Your task to perform on an android device: turn on the 12-hour format for clock Image 0: 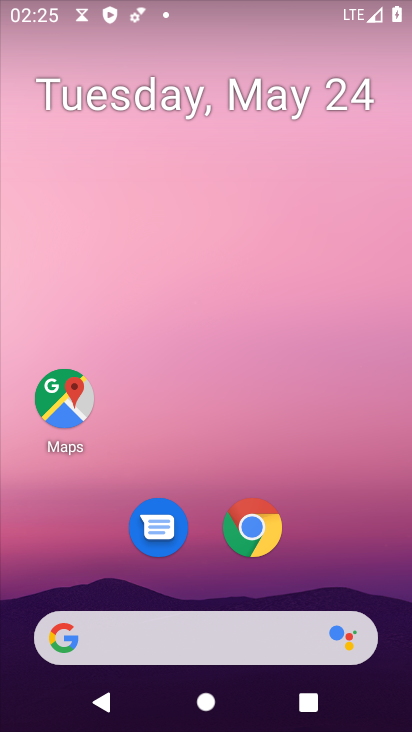
Step 0: press home button
Your task to perform on an android device: turn on the 12-hour format for clock Image 1: 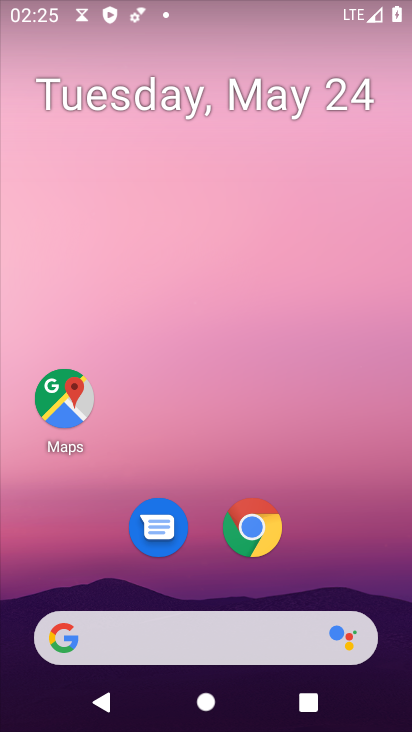
Step 1: drag from (151, 631) to (254, 53)
Your task to perform on an android device: turn on the 12-hour format for clock Image 2: 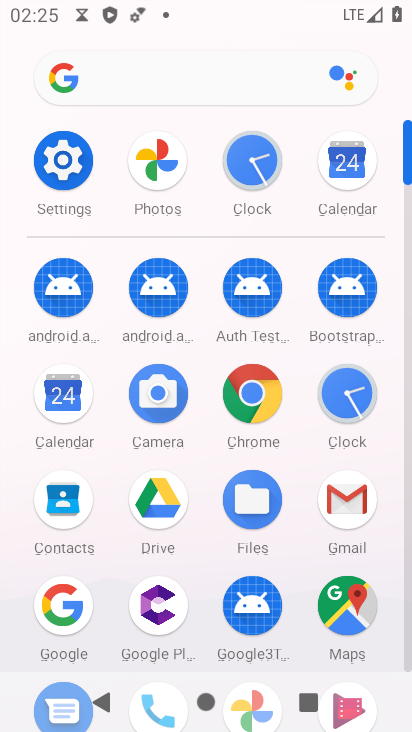
Step 2: click (356, 392)
Your task to perform on an android device: turn on the 12-hour format for clock Image 3: 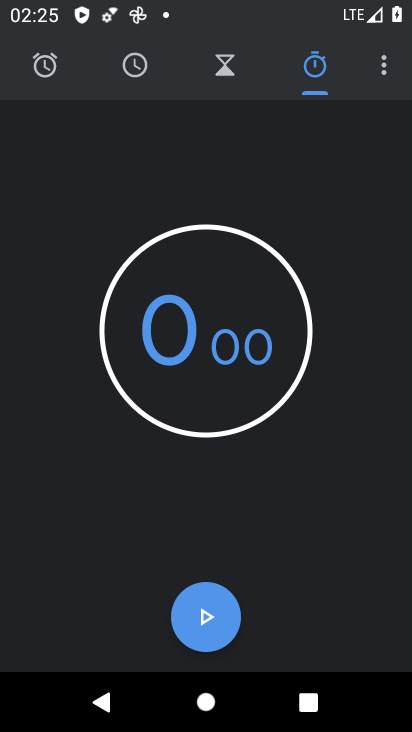
Step 3: click (384, 64)
Your task to perform on an android device: turn on the 12-hour format for clock Image 4: 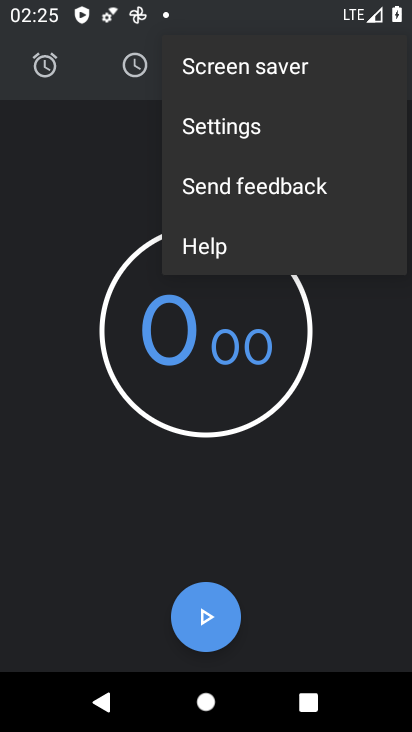
Step 4: click (204, 129)
Your task to perform on an android device: turn on the 12-hour format for clock Image 5: 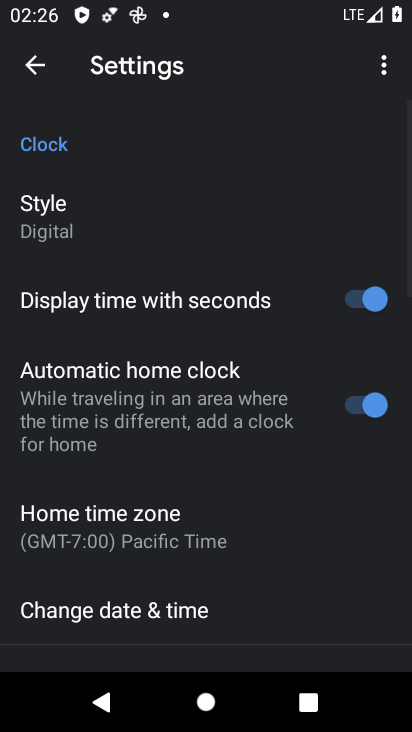
Step 5: click (132, 612)
Your task to perform on an android device: turn on the 12-hour format for clock Image 6: 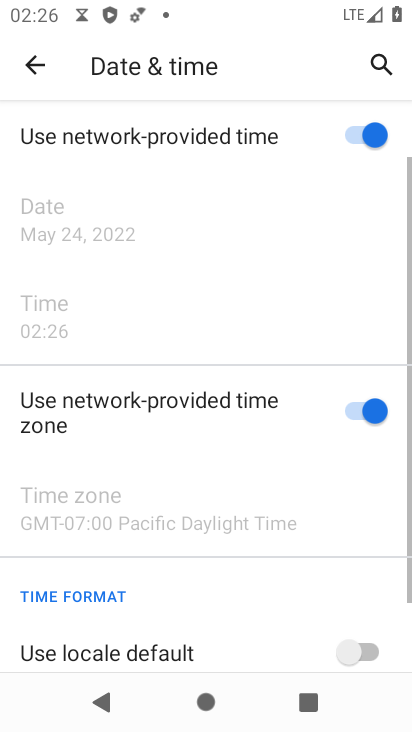
Step 6: drag from (169, 620) to (263, 79)
Your task to perform on an android device: turn on the 12-hour format for clock Image 7: 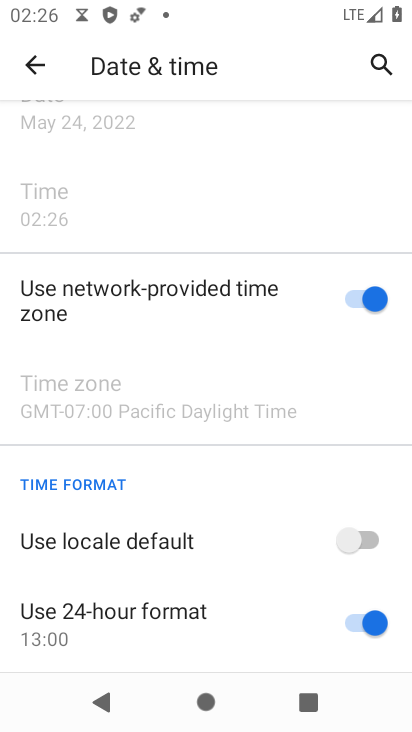
Step 7: click (365, 540)
Your task to perform on an android device: turn on the 12-hour format for clock Image 8: 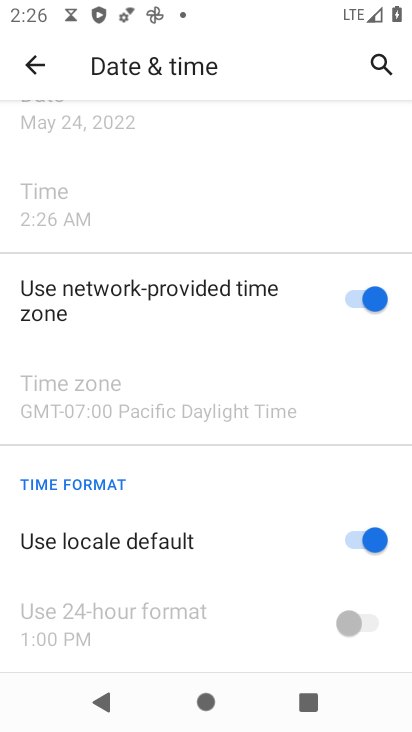
Step 8: task complete